Your task to perform on an android device: Go to Wikipedia Image 0: 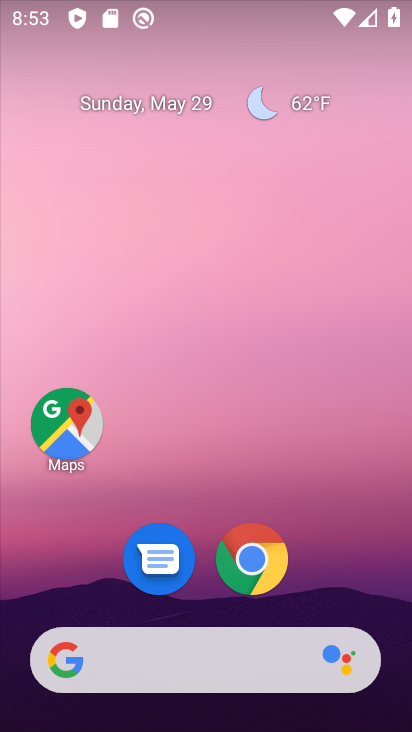
Step 0: drag from (277, 546) to (304, 224)
Your task to perform on an android device: Go to Wikipedia Image 1: 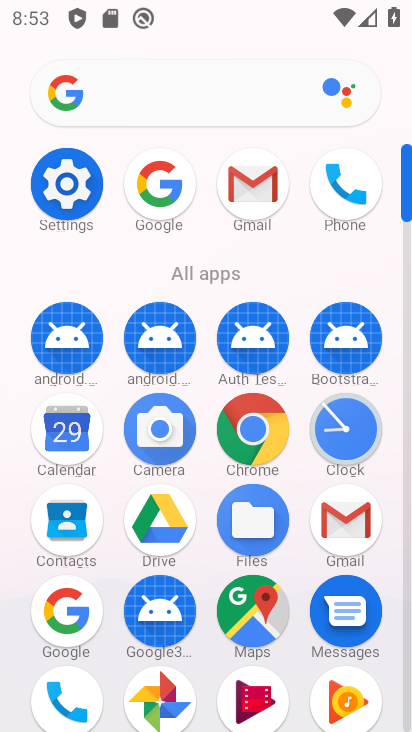
Step 1: click (244, 421)
Your task to perform on an android device: Go to Wikipedia Image 2: 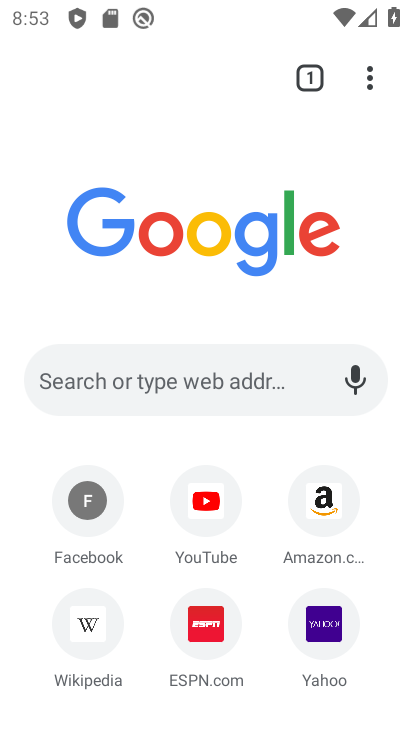
Step 2: click (83, 612)
Your task to perform on an android device: Go to Wikipedia Image 3: 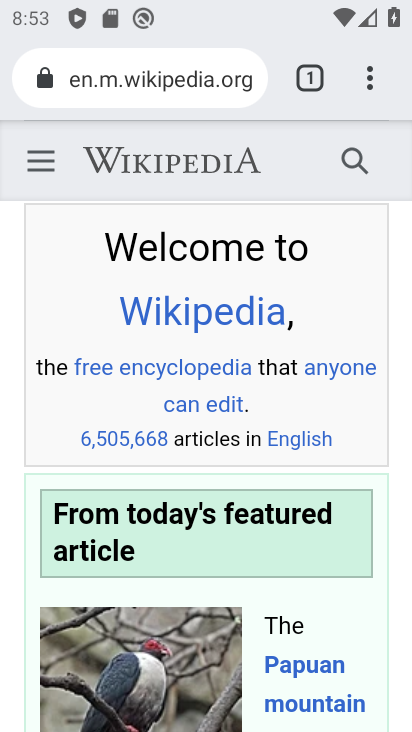
Step 3: task complete